Your task to perform on an android device: Open the phone app and click the voicemail tab. Image 0: 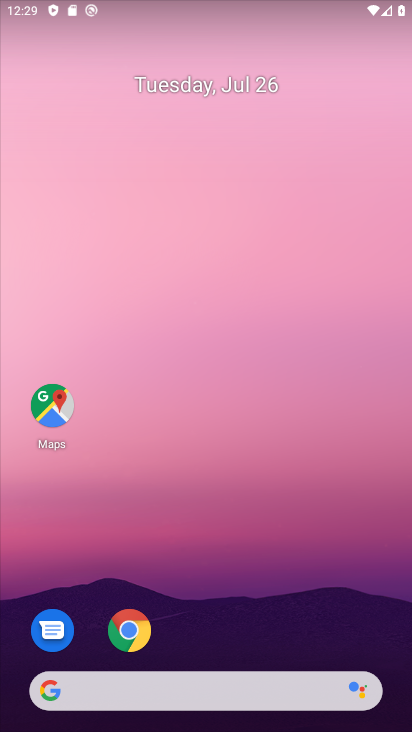
Step 0: drag from (368, 623) to (334, 208)
Your task to perform on an android device: Open the phone app and click the voicemail tab. Image 1: 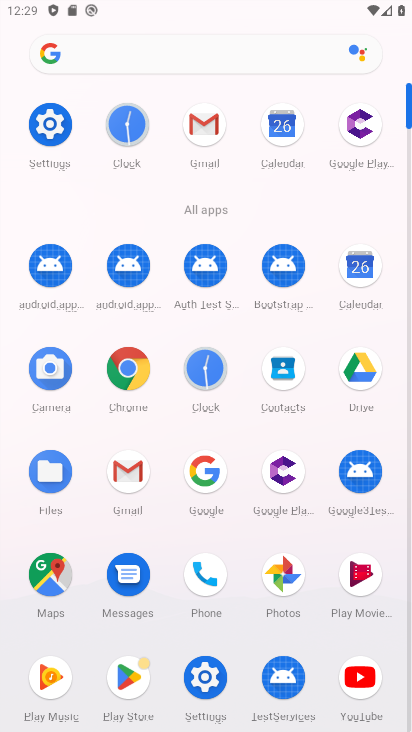
Step 1: click (208, 579)
Your task to perform on an android device: Open the phone app and click the voicemail tab. Image 2: 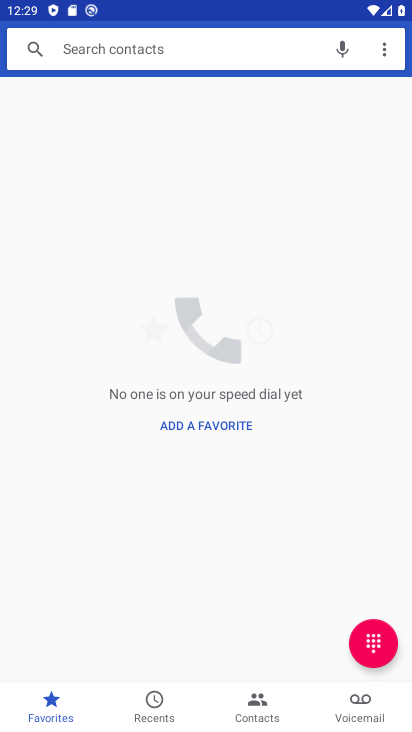
Step 2: click (366, 708)
Your task to perform on an android device: Open the phone app and click the voicemail tab. Image 3: 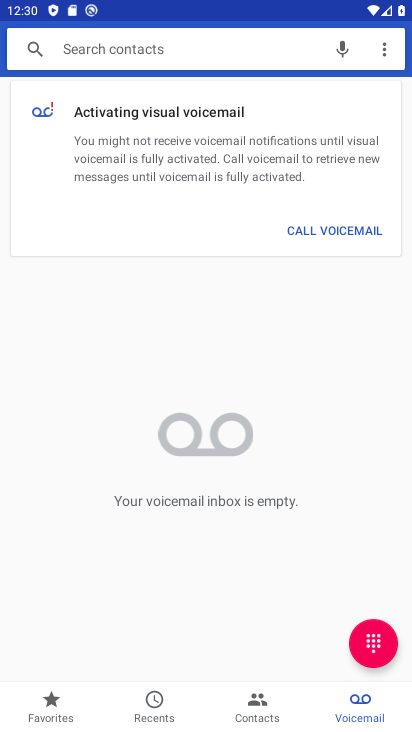
Step 3: task complete